Your task to perform on an android device: turn on airplane mode Image 0: 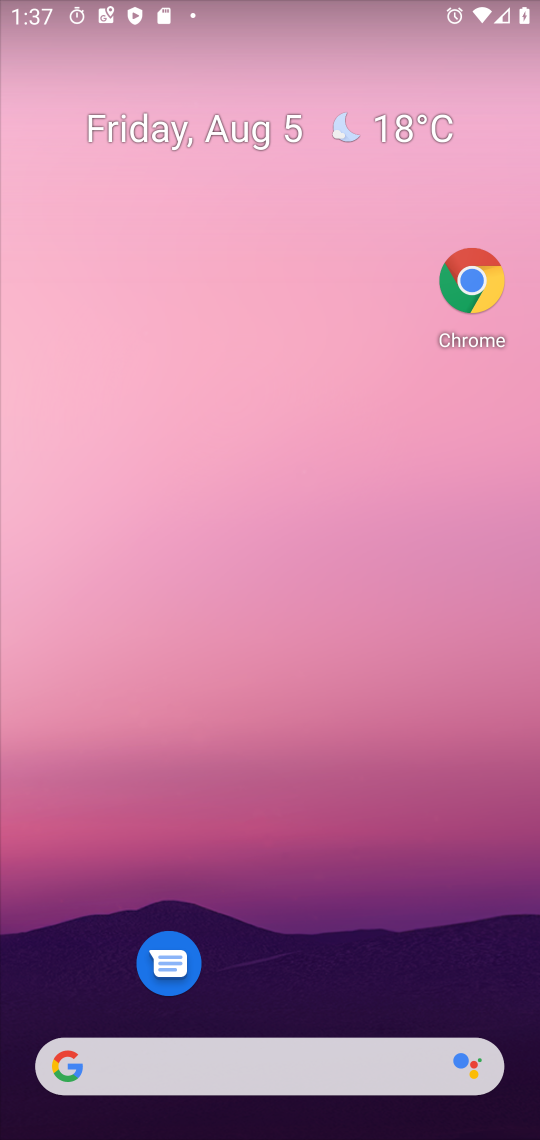
Step 0: drag from (290, 923) to (431, 8)
Your task to perform on an android device: turn on airplane mode Image 1: 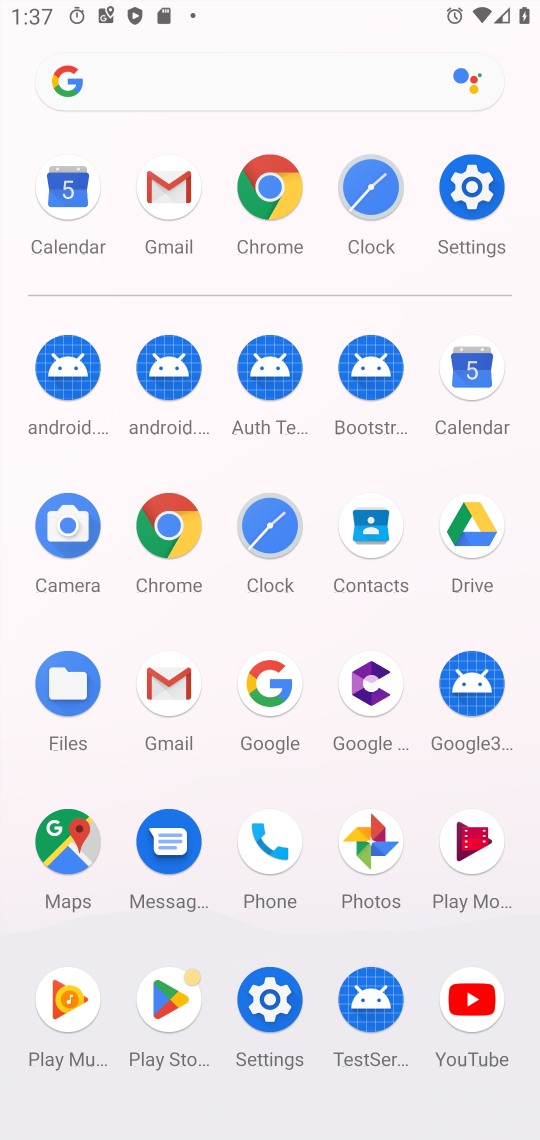
Step 1: click (474, 180)
Your task to perform on an android device: turn on airplane mode Image 2: 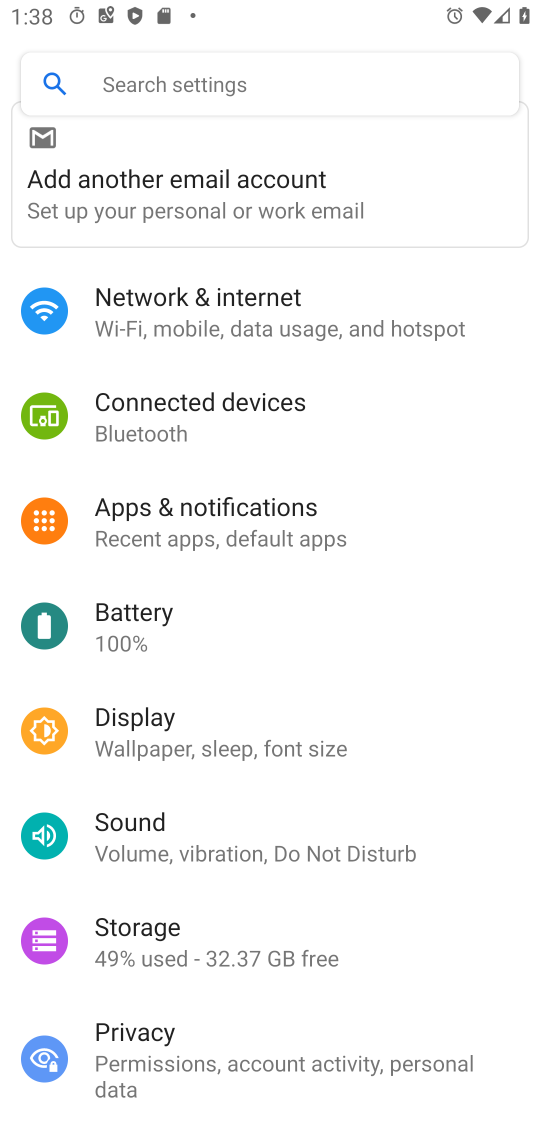
Step 2: click (124, 334)
Your task to perform on an android device: turn on airplane mode Image 3: 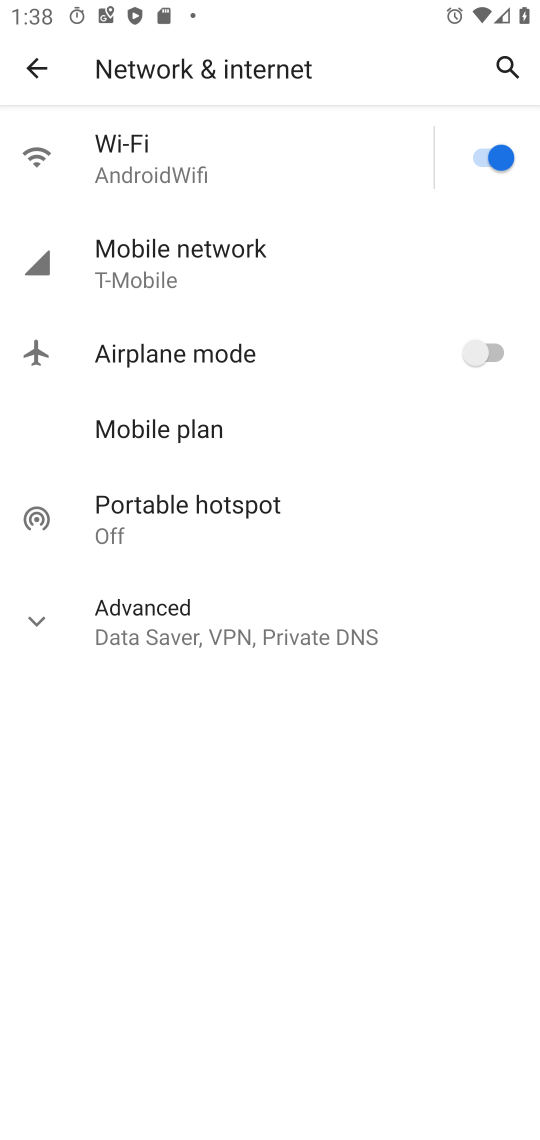
Step 3: click (484, 352)
Your task to perform on an android device: turn on airplane mode Image 4: 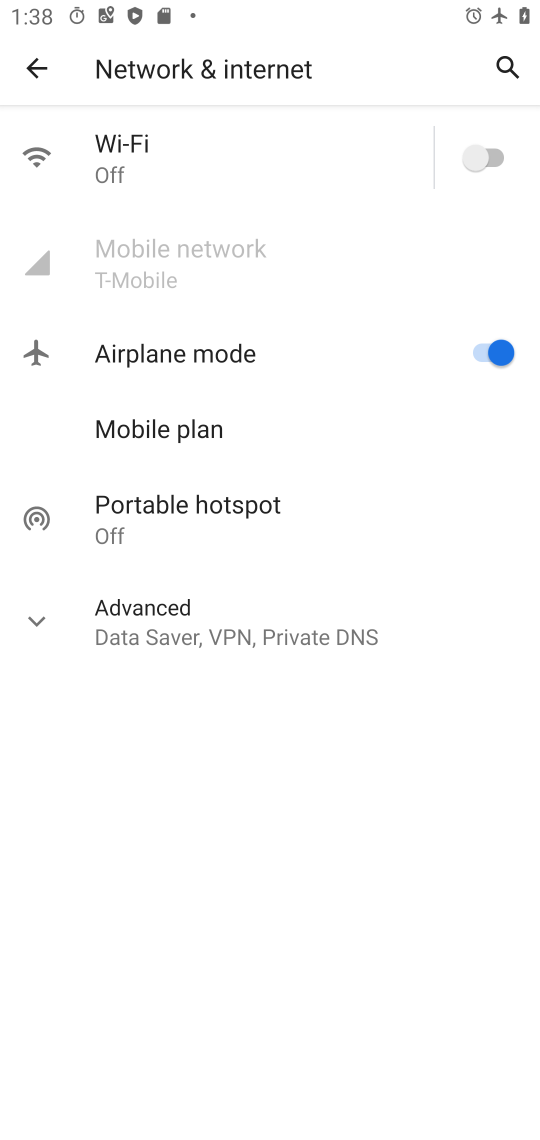
Step 4: task complete